Your task to perform on an android device: What's the weather today? Image 0: 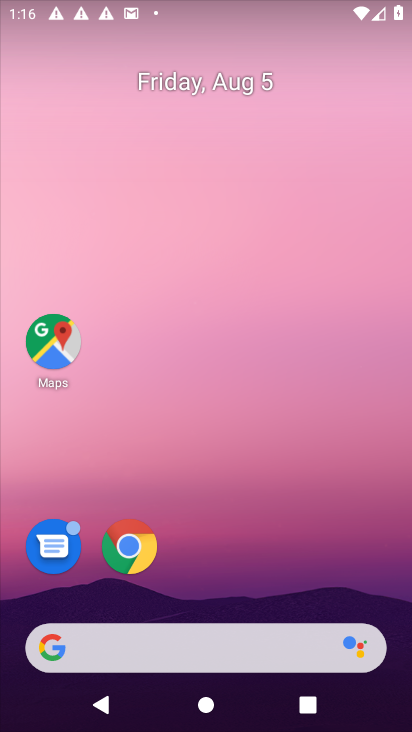
Step 0: press home button
Your task to perform on an android device: What's the weather today? Image 1: 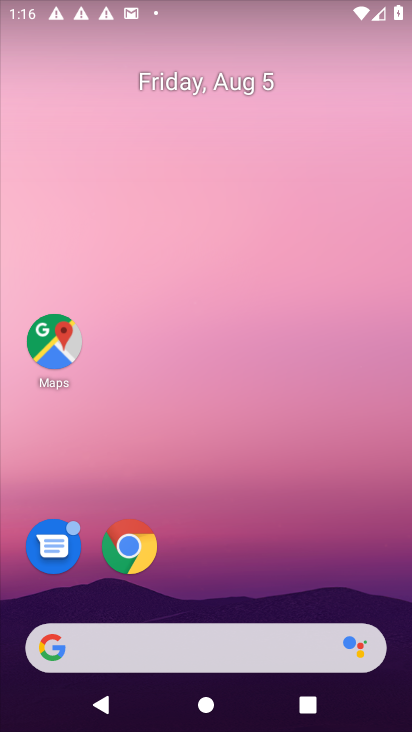
Step 1: drag from (222, 584) to (282, 25)
Your task to perform on an android device: What's the weather today? Image 2: 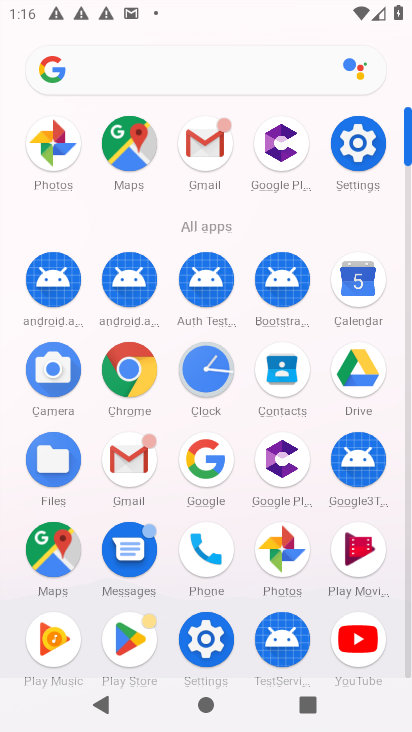
Step 2: press home button
Your task to perform on an android device: What's the weather today? Image 3: 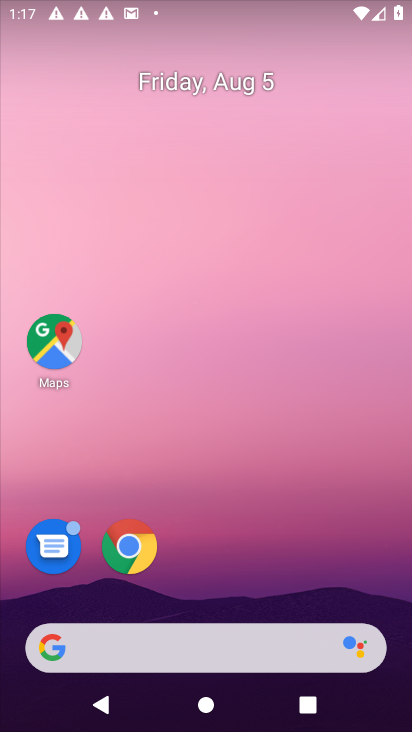
Step 3: drag from (18, 236) to (406, 278)
Your task to perform on an android device: What's the weather today? Image 4: 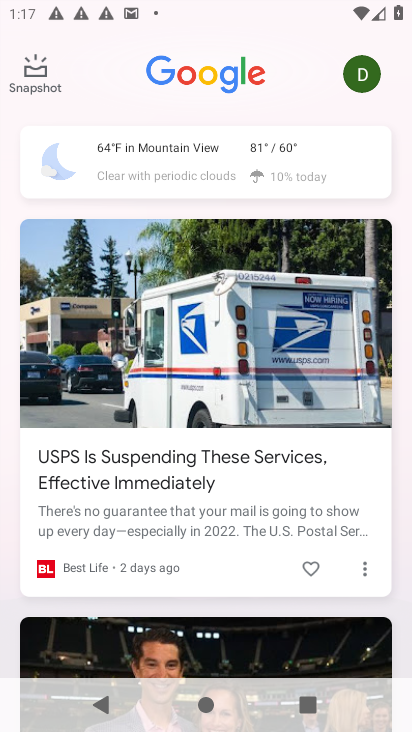
Step 4: click (273, 152)
Your task to perform on an android device: What's the weather today? Image 5: 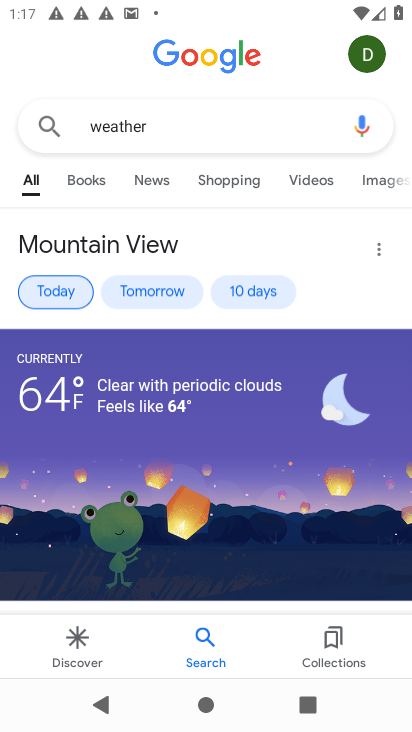
Step 5: task complete